Your task to perform on an android device: turn pop-ups off in chrome Image 0: 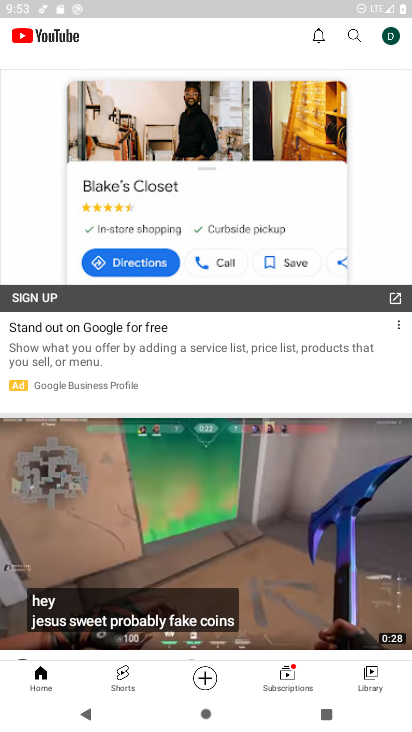
Step 0: press home button
Your task to perform on an android device: turn pop-ups off in chrome Image 1: 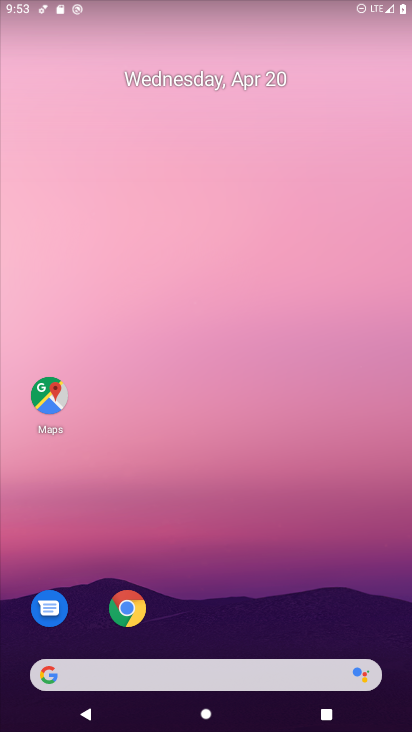
Step 1: click (133, 596)
Your task to perform on an android device: turn pop-ups off in chrome Image 2: 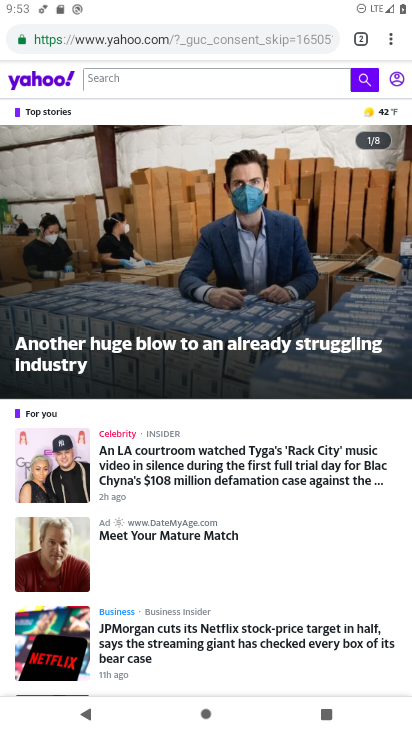
Step 2: click (388, 38)
Your task to perform on an android device: turn pop-ups off in chrome Image 3: 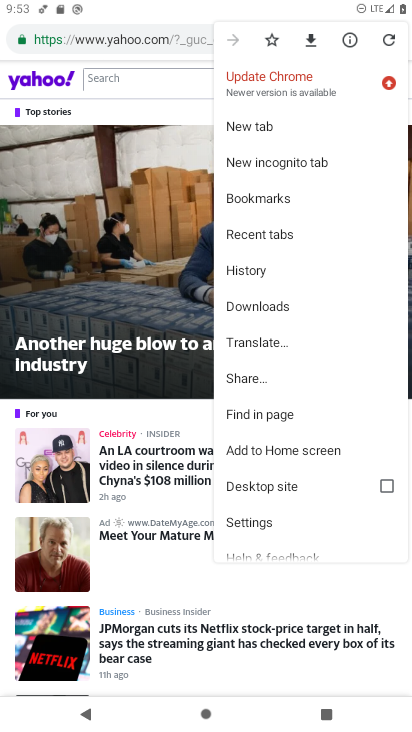
Step 3: click (241, 516)
Your task to perform on an android device: turn pop-ups off in chrome Image 4: 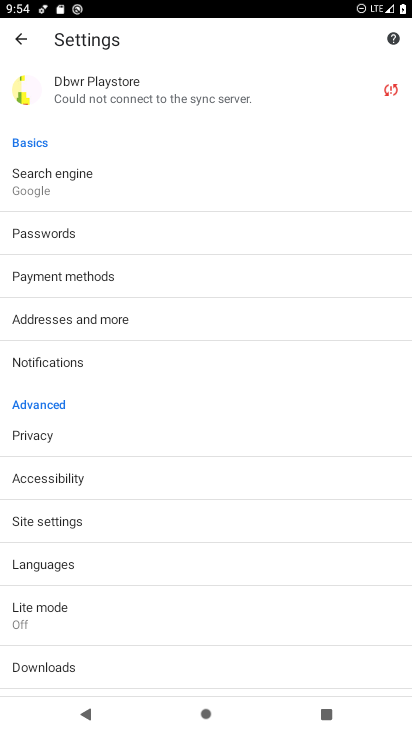
Step 4: click (69, 517)
Your task to perform on an android device: turn pop-ups off in chrome Image 5: 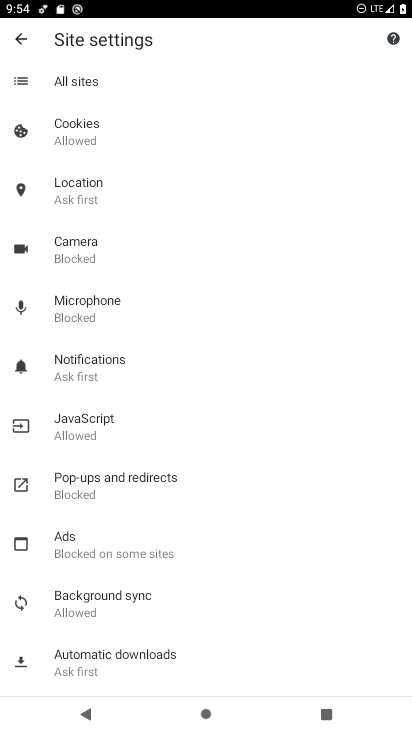
Step 5: click (83, 492)
Your task to perform on an android device: turn pop-ups off in chrome Image 6: 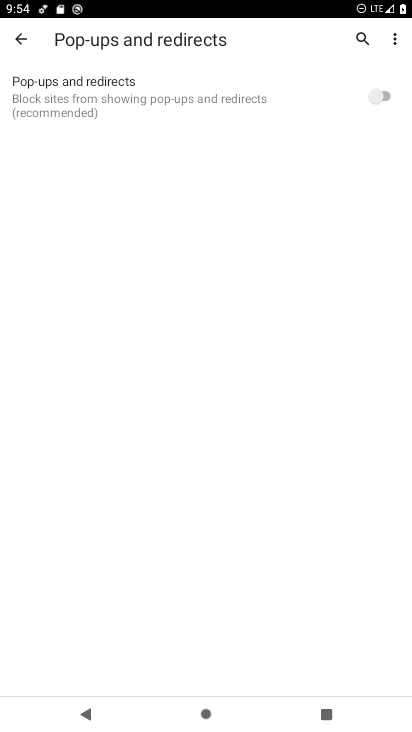
Step 6: task complete